Your task to perform on an android device: Go to eBay Image 0: 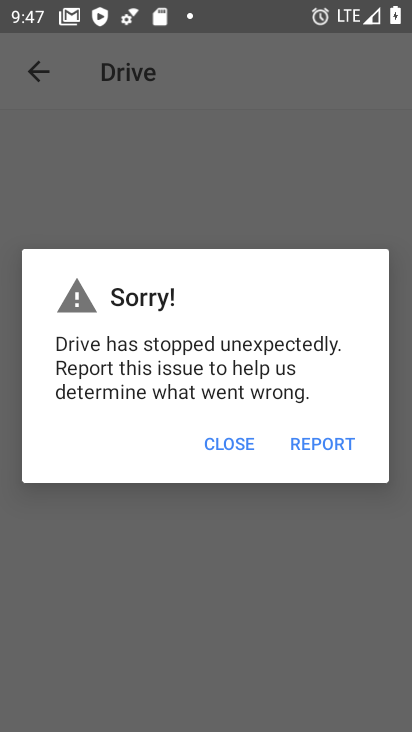
Step 0: press home button
Your task to perform on an android device: Go to eBay Image 1: 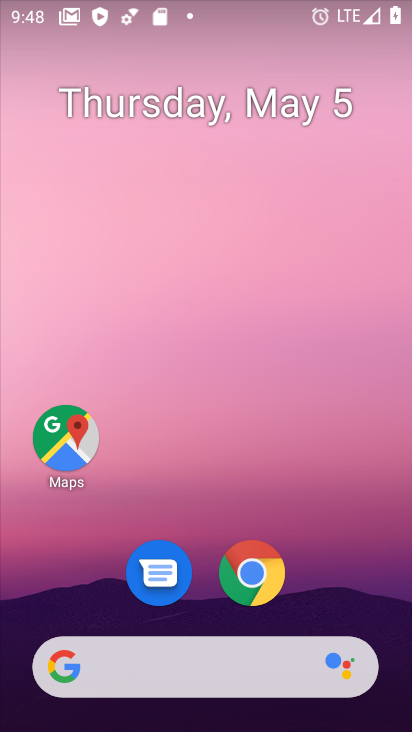
Step 1: click (250, 575)
Your task to perform on an android device: Go to eBay Image 2: 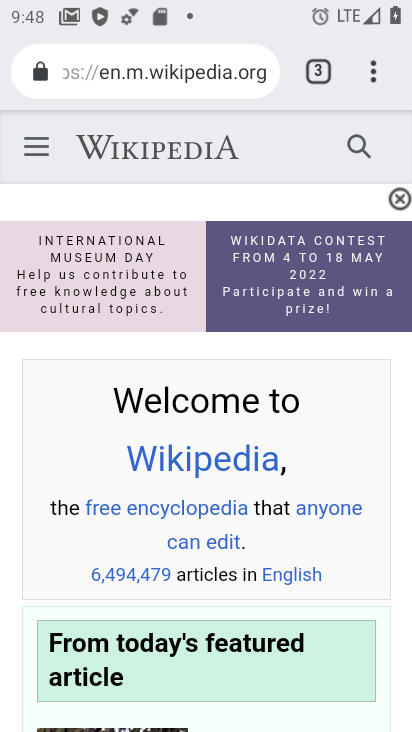
Step 2: click (316, 60)
Your task to perform on an android device: Go to eBay Image 3: 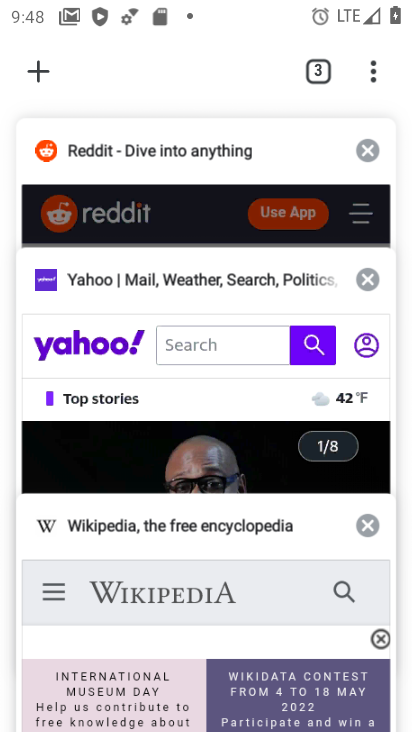
Step 3: click (40, 62)
Your task to perform on an android device: Go to eBay Image 4: 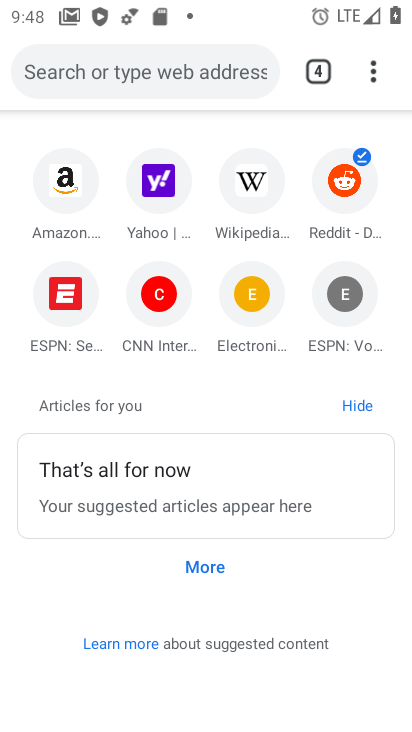
Step 4: click (71, 62)
Your task to perform on an android device: Go to eBay Image 5: 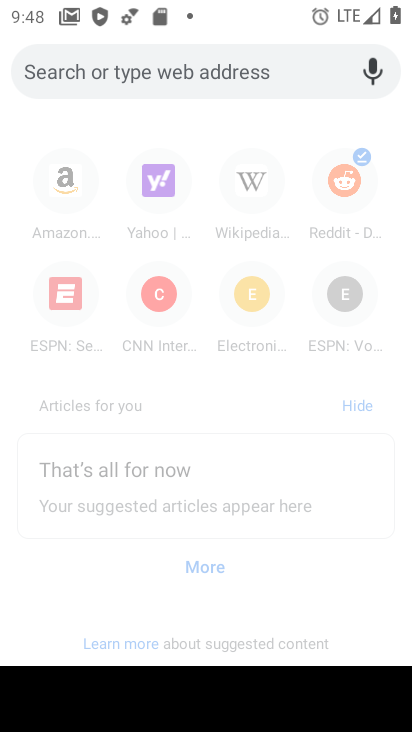
Step 5: click (84, 77)
Your task to perform on an android device: Go to eBay Image 6: 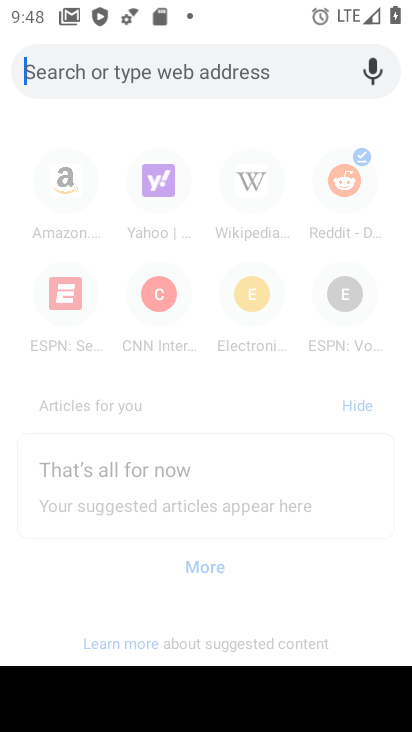
Step 6: type "ebay"
Your task to perform on an android device: Go to eBay Image 7: 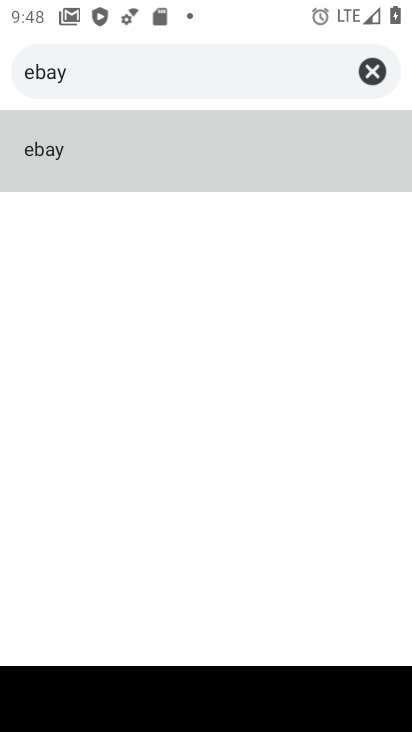
Step 7: click (168, 164)
Your task to perform on an android device: Go to eBay Image 8: 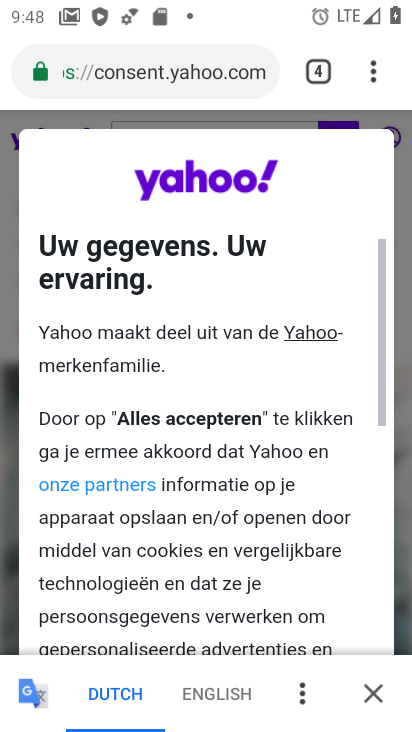
Step 8: task complete